Your task to perform on an android device: toggle javascript in the chrome app Image 0: 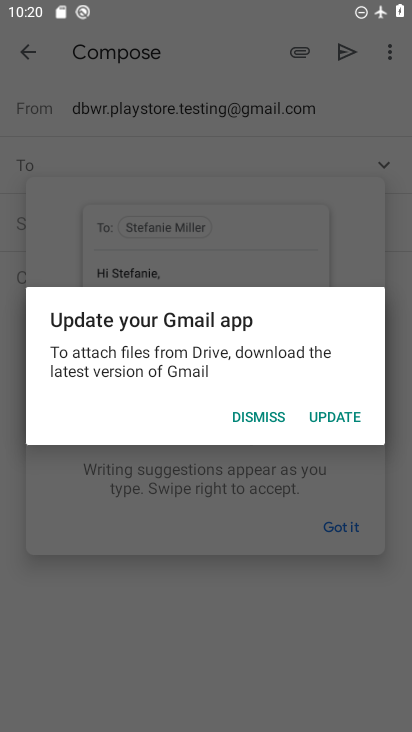
Step 0: press home button
Your task to perform on an android device: toggle javascript in the chrome app Image 1: 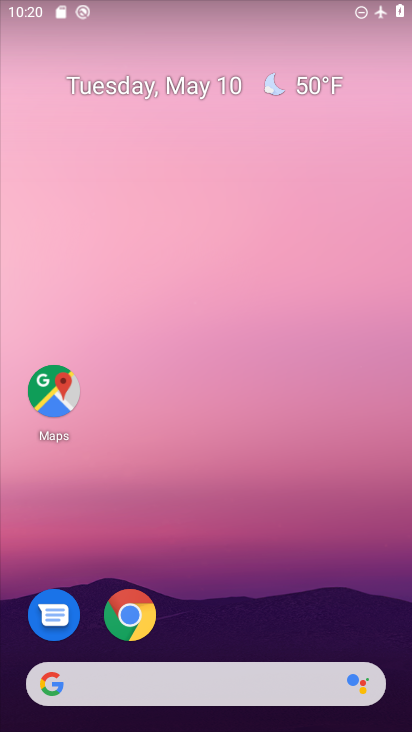
Step 1: click (132, 616)
Your task to perform on an android device: toggle javascript in the chrome app Image 2: 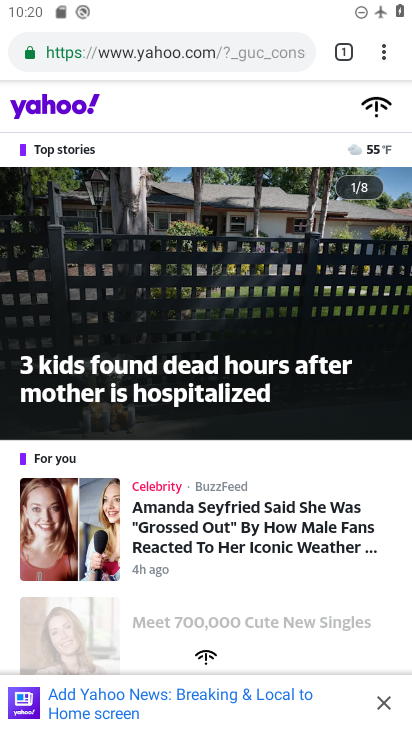
Step 2: click (378, 56)
Your task to perform on an android device: toggle javascript in the chrome app Image 3: 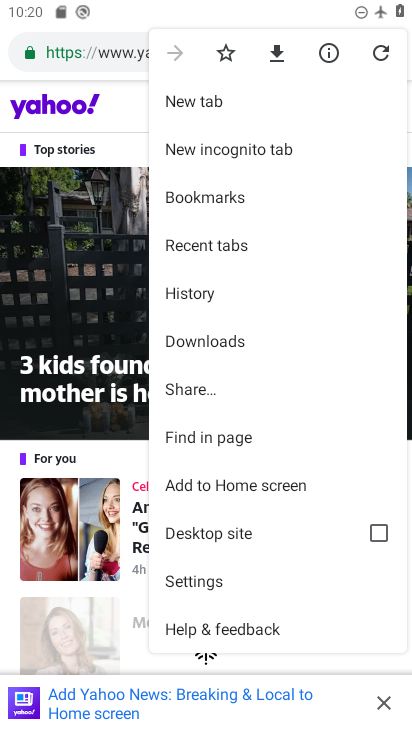
Step 3: click (193, 569)
Your task to perform on an android device: toggle javascript in the chrome app Image 4: 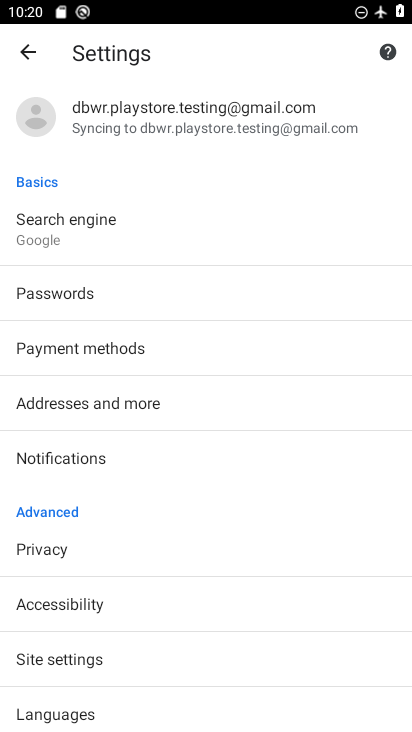
Step 4: click (87, 663)
Your task to perform on an android device: toggle javascript in the chrome app Image 5: 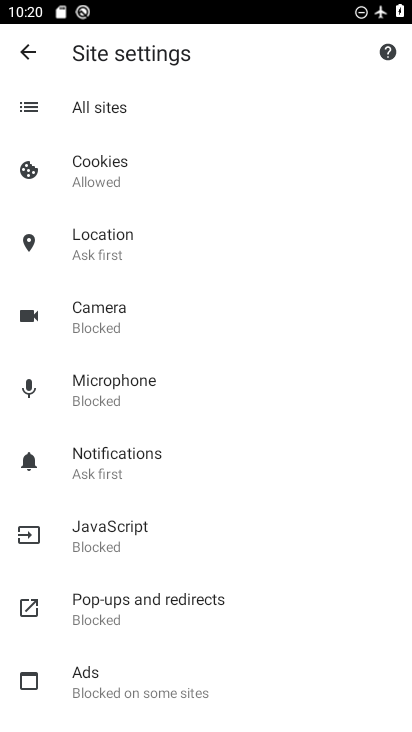
Step 5: click (106, 517)
Your task to perform on an android device: toggle javascript in the chrome app Image 6: 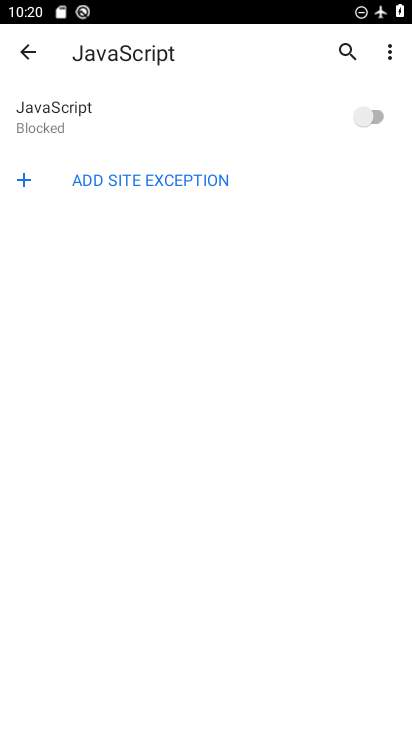
Step 6: click (378, 117)
Your task to perform on an android device: toggle javascript in the chrome app Image 7: 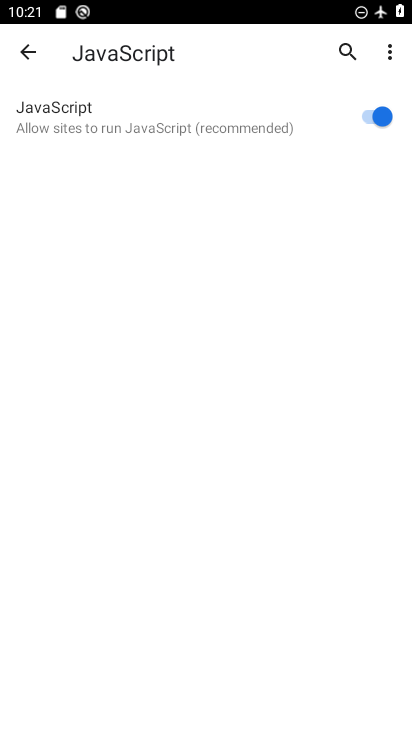
Step 7: task complete